Your task to perform on an android device: turn on bluetooth scan Image 0: 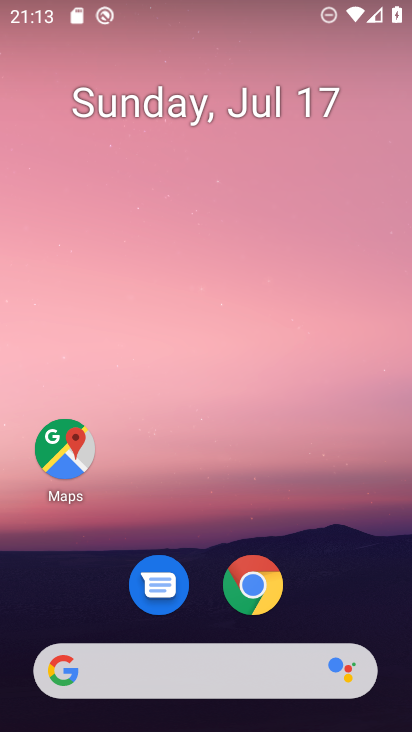
Step 0: drag from (233, 673) to (346, 62)
Your task to perform on an android device: turn on bluetooth scan Image 1: 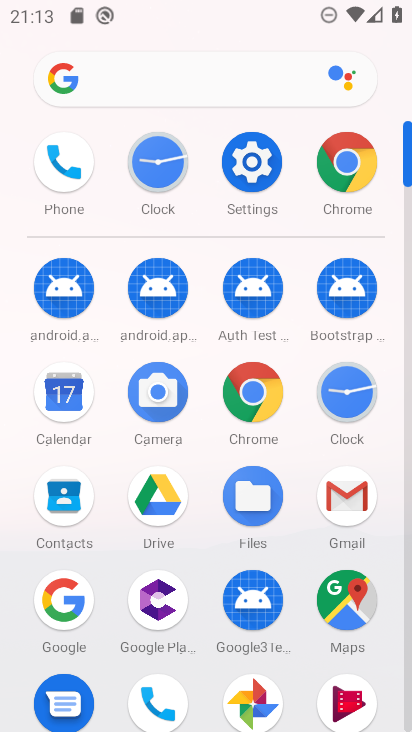
Step 1: click (257, 156)
Your task to perform on an android device: turn on bluetooth scan Image 2: 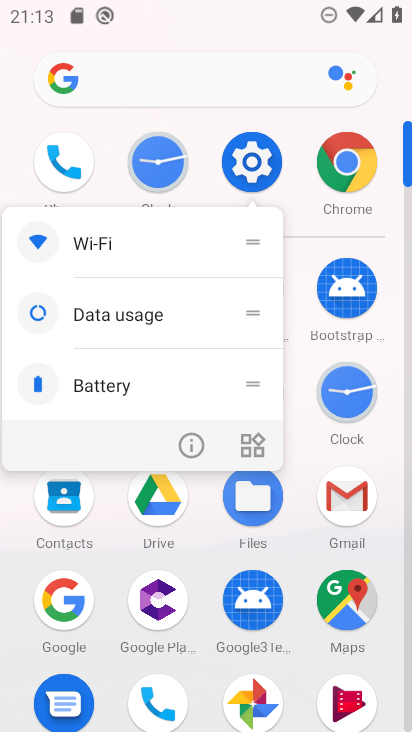
Step 2: click (240, 157)
Your task to perform on an android device: turn on bluetooth scan Image 3: 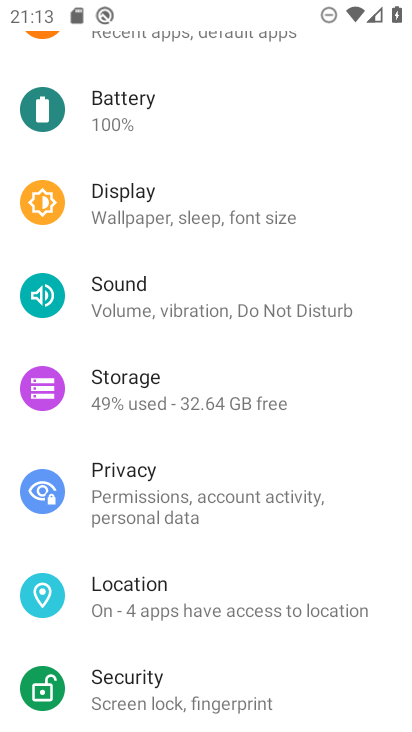
Step 3: drag from (240, 156) to (150, 475)
Your task to perform on an android device: turn on bluetooth scan Image 4: 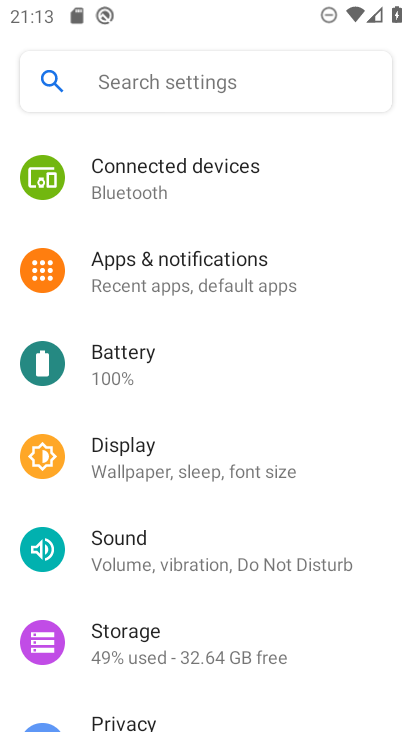
Step 4: drag from (252, 629) to (324, 227)
Your task to perform on an android device: turn on bluetooth scan Image 5: 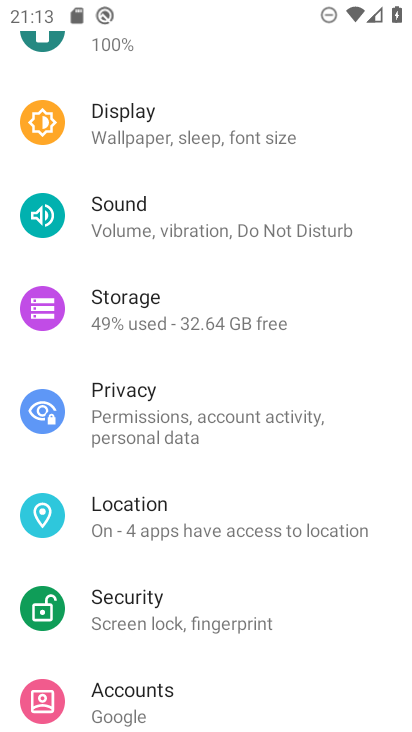
Step 5: click (192, 524)
Your task to perform on an android device: turn on bluetooth scan Image 6: 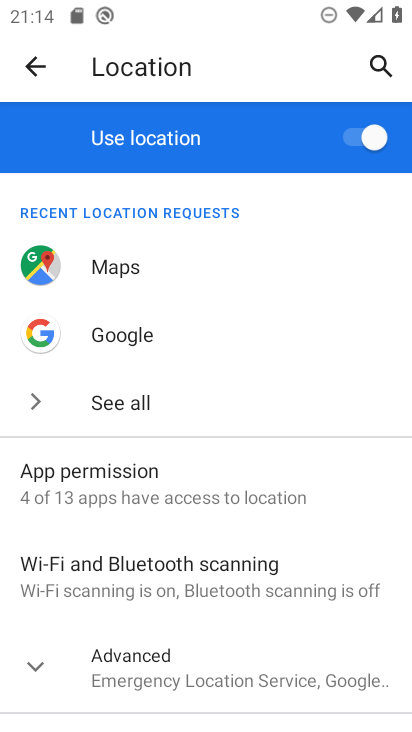
Step 6: drag from (200, 542) to (312, 126)
Your task to perform on an android device: turn on bluetooth scan Image 7: 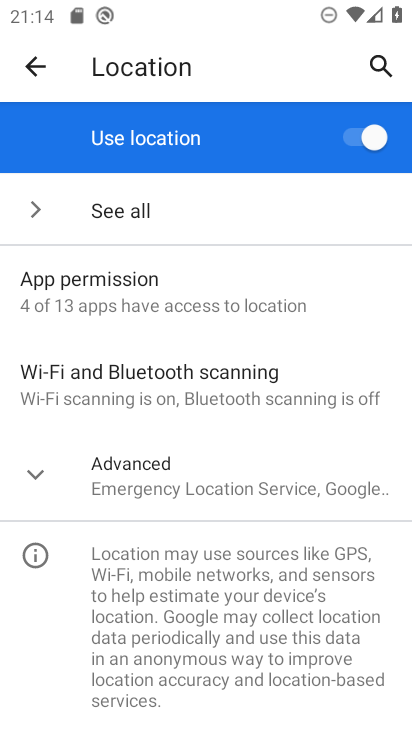
Step 7: click (210, 381)
Your task to perform on an android device: turn on bluetooth scan Image 8: 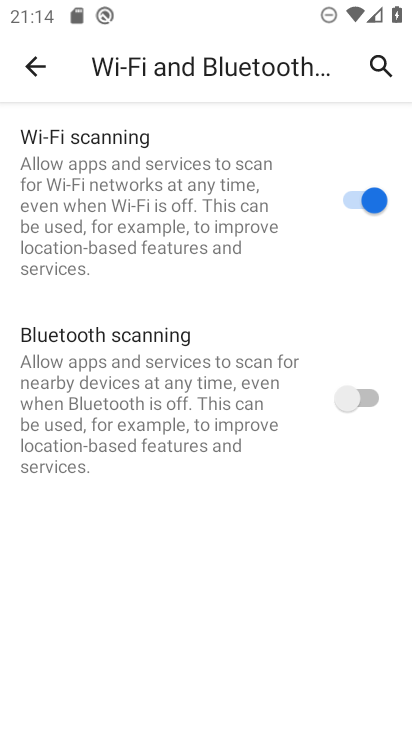
Step 8: click (370, 395)
Your task to perform on an android device: turn on bluetooth scan Image 9: 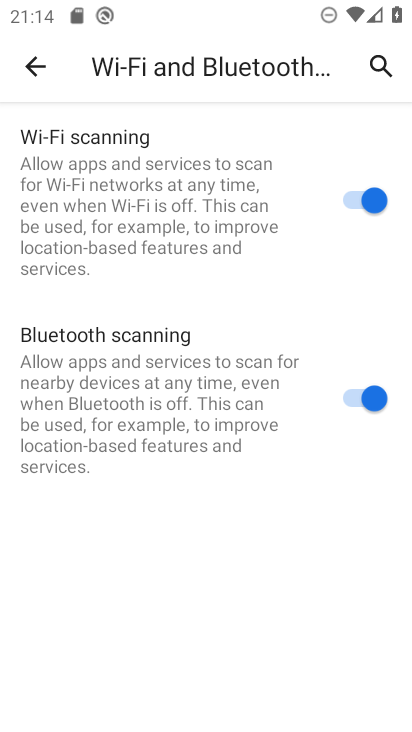
Step 9: task complete